Your task to perform on an android device: Open my contact list Image 0: 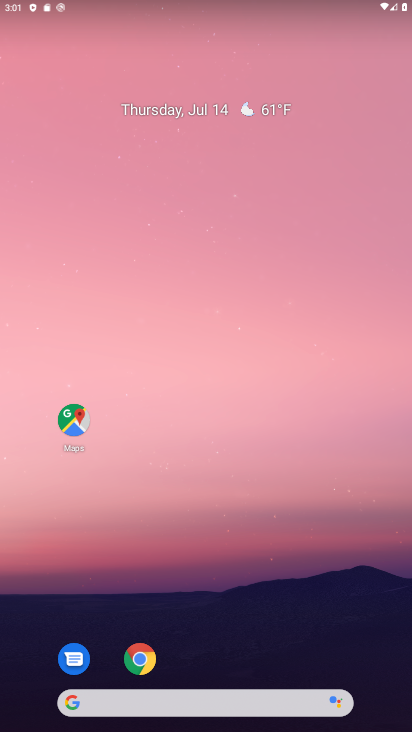
Step 0: drag from (214, 697) to (247, 281)
Your task to perform on an android device: Open my contact list Image 1: 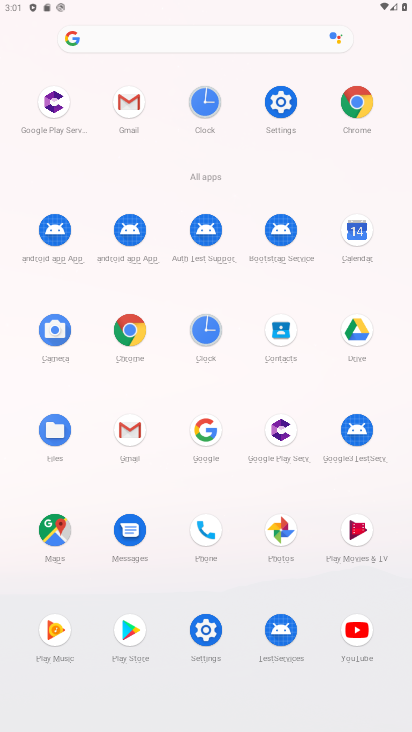
Step 1: click (281, 331)
Your task to perform on an android device: Open my contact list Image 2: 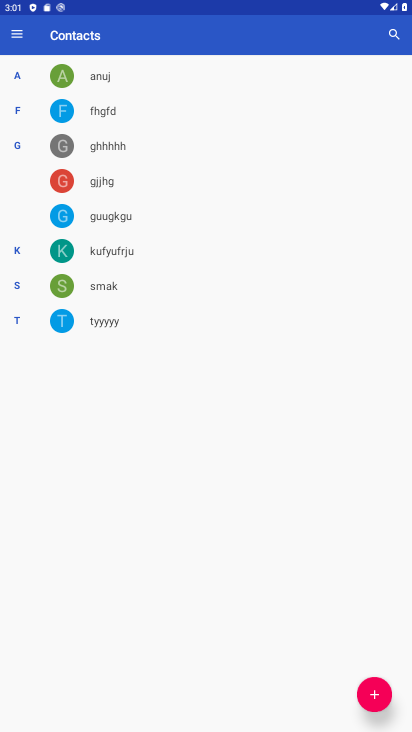
Step 2: task complete